Your task to perform on an android device: set the stopwatch Image 0: 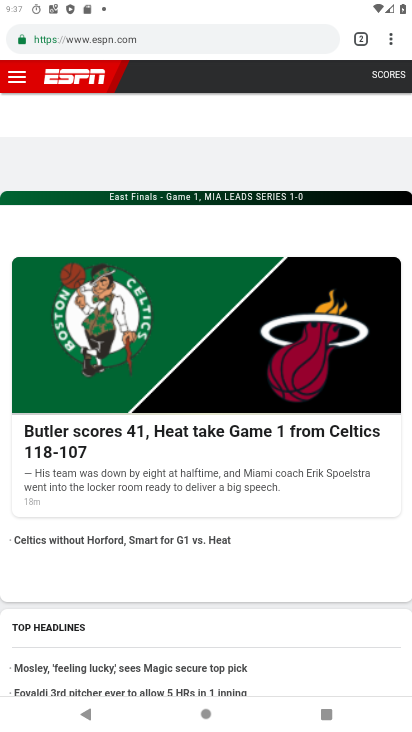
Step 0: press home button
Your task to perform on an android device: set the stopwatch Image 1: 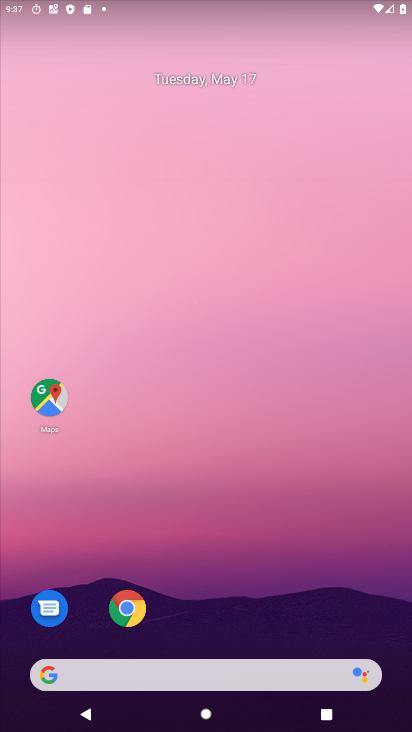
Step 1: drag from (282, 600) to (299, 126)
Your task to perform on an android device: set the stopwatch Image 2: 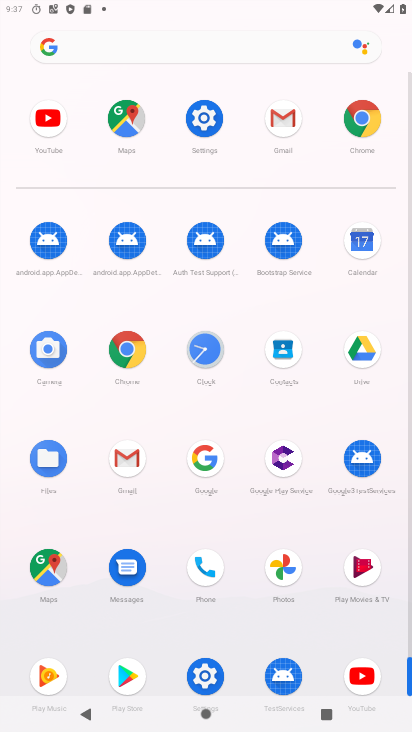
Step 2: click (204, 357)
Your task to perform on an android device: set the stopwatch Image 3: 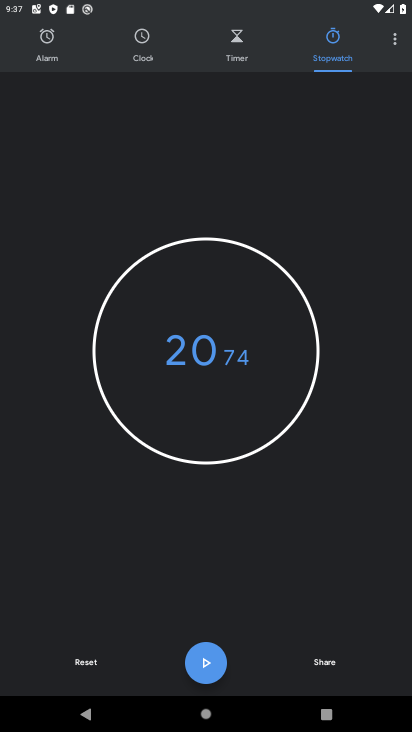
Step 3: click (98, 667)
Your task to perform on an android device: set the stopwatch Image 4: 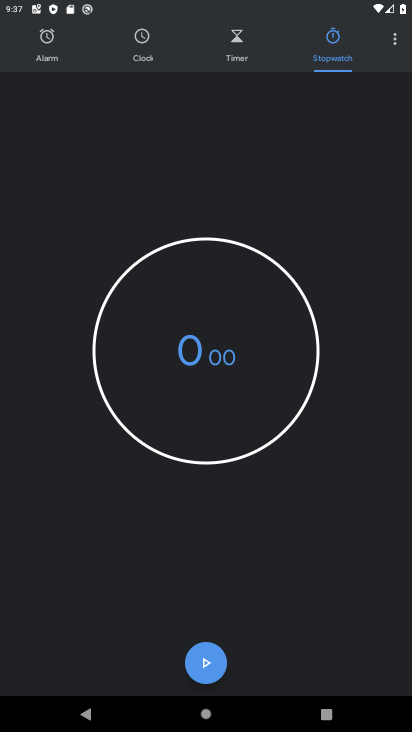
Step 4: click (209, 660)
Your task to perform on an android device: set the stopwatch Image 5: 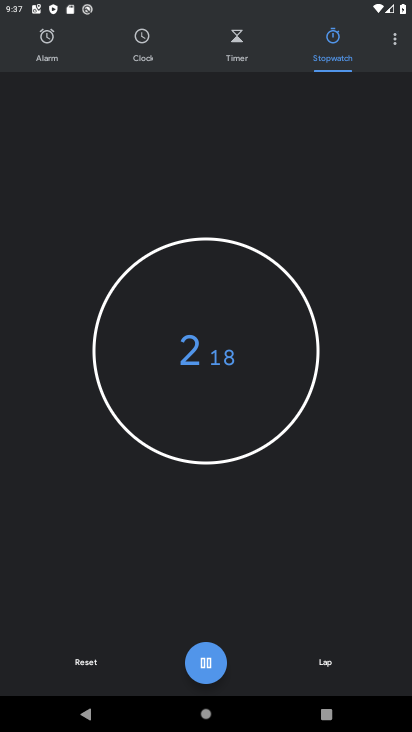
Step 5: click (210, 668)
Your task to perform on an android device: set the stopwatch Image 6: 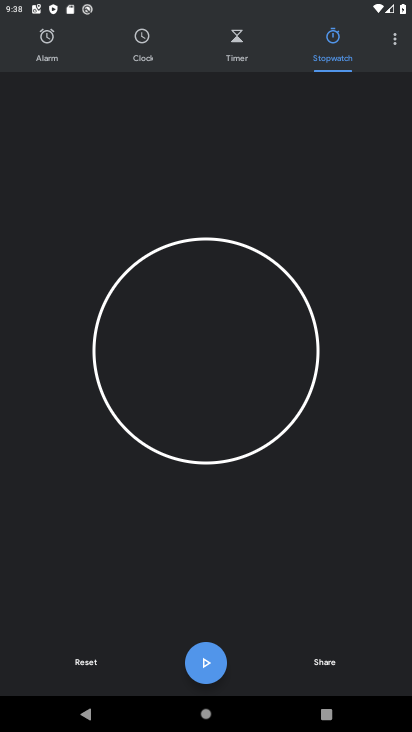
Step 6: task complete